Your task to perform on an android device: delete browsing data in the chrome app Image 0: 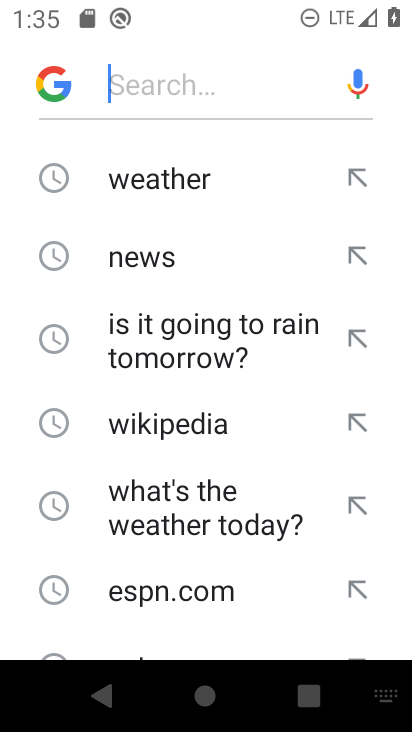
Step 0: press home button
Your task to perform on an android device: delete browsing data in the chrome app Image 1: 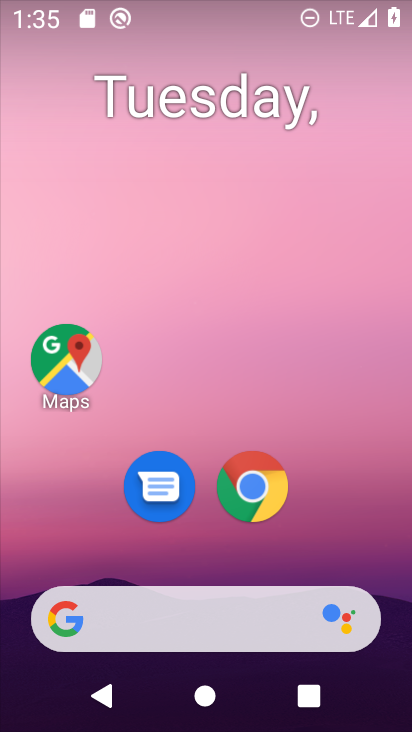
Step 1: drag from (203, 577) to (258, 160)
Your task to perform on an android device: delete browsing data in the chrome app Image 2: 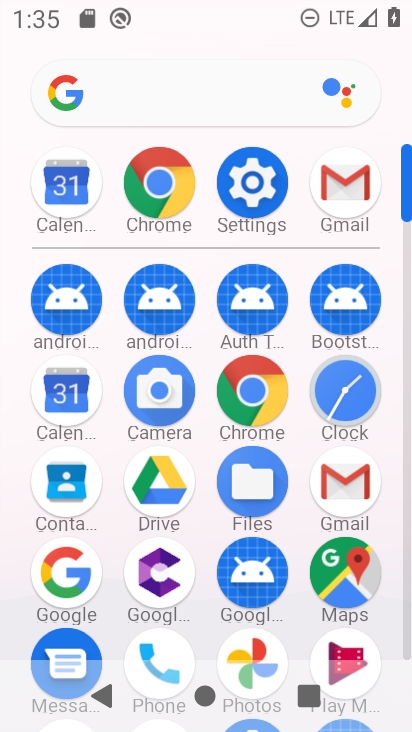
Step 2: drag from (192, 261) to (209, 149)
Your task to perform on an android device: delete browsing data in the chrome app Image 3: 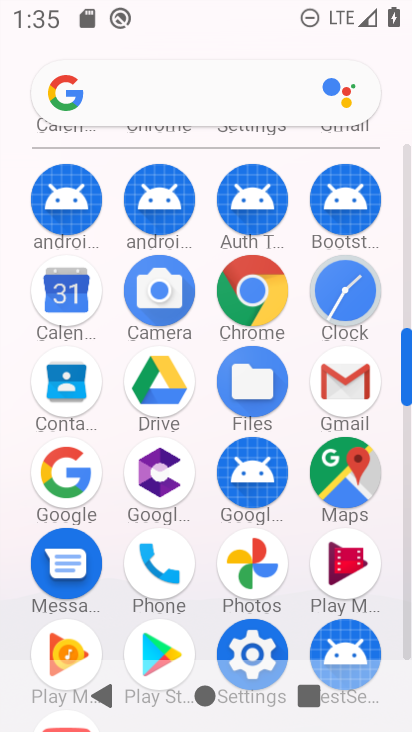
Step 3: click (261, 304)
Your task to perform on an android device: delete browsing data in the chrome app Image 4: 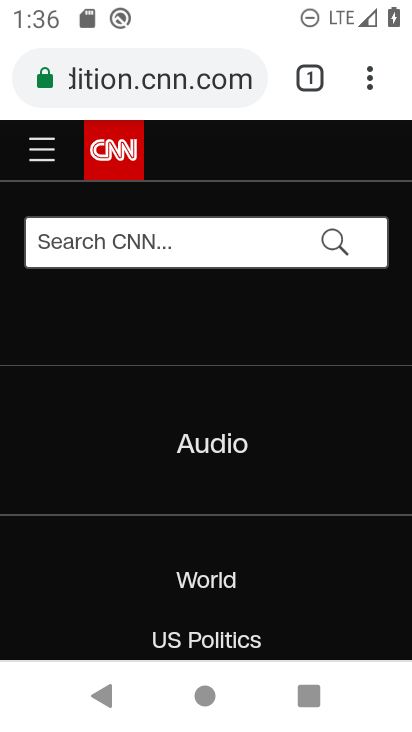
Step 4: click (373, 85)
Your task to perform on an android device: delete browsing data in the chrome app Image 5: 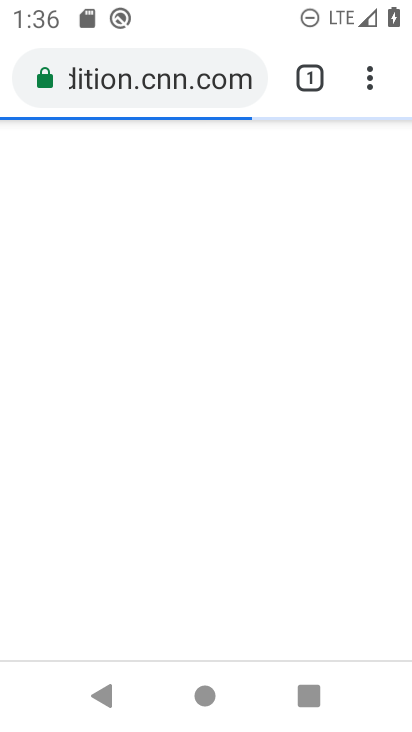
Step 5: click (373, 85)
Your task to perform on an android device: delete browsing data in the chrome app Image 6: 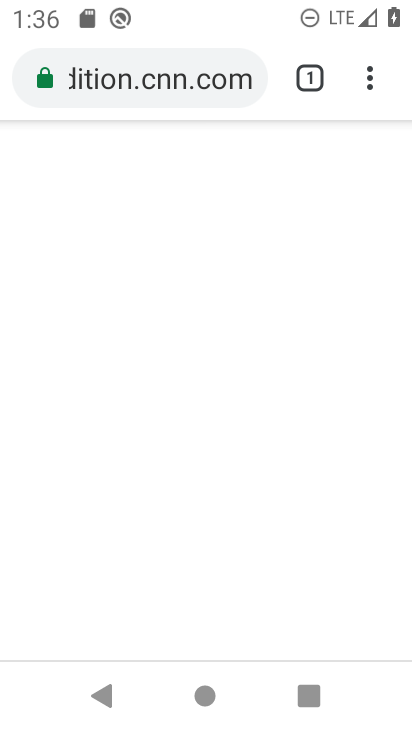
Step 6: click (370, 85)
Your task to perform on an android device: delete browsing data in the chrome app Image 7: 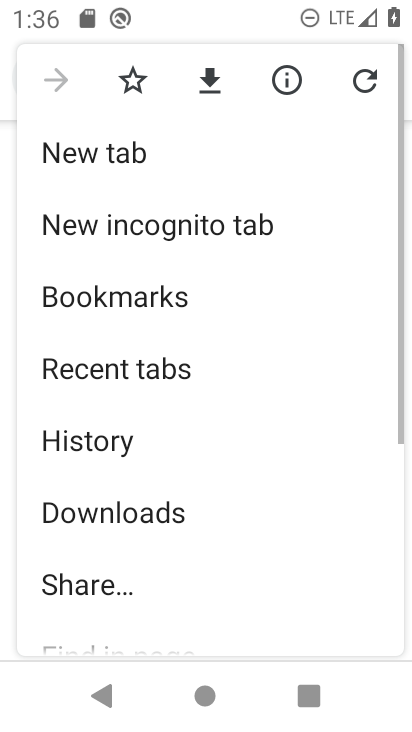
Step 7: drag from (193, 517) to (241, 232)
Your task to perform on an android device: delete browsing data in the chrome app Image 8: 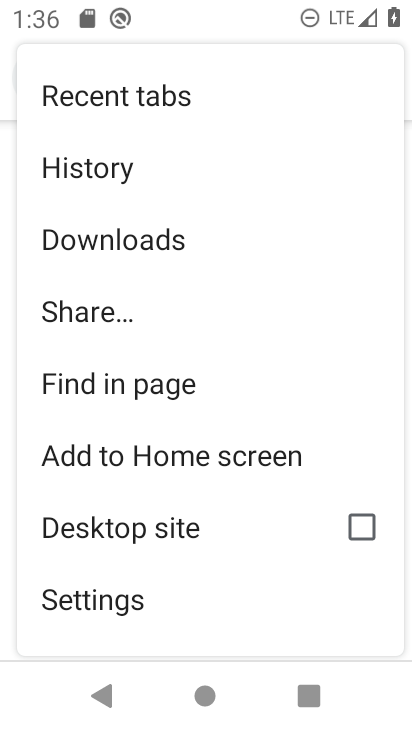
Step 8: click (165, 605)
Your task to perform on an android device: delete browsing data in the chrome app Image 9: 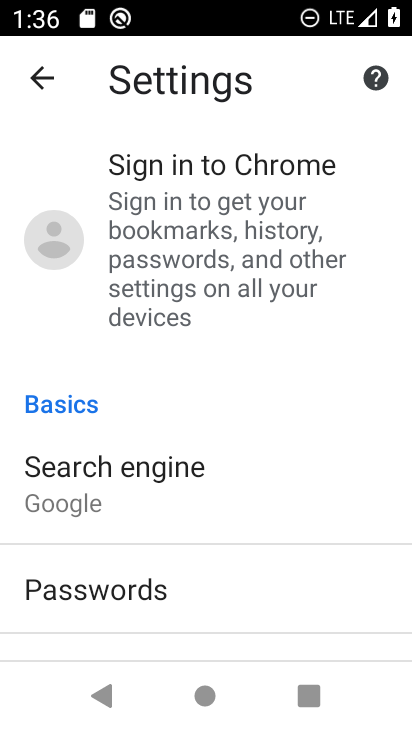
Step 9: drag from (141, 581) to (209, 199)
Your task to perform on an android device: delete browsing data in the chrome app Image 10: 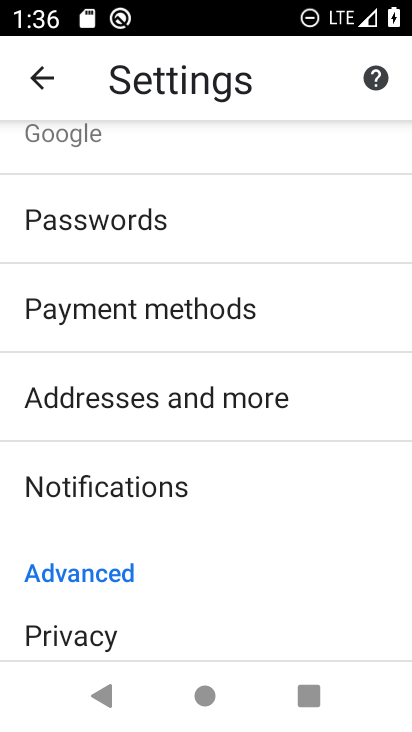
Step 10: drag from (166, 573) to (185, 328)
Your task to perform on an android device: delete browsing data in the chrome app Image 11: 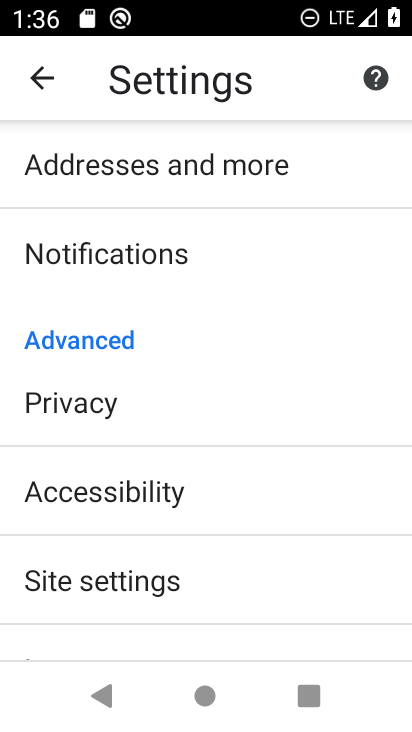
Step 11: press back button
Your task to perform on an android device: delete browsing data in the chrome app Image 12: 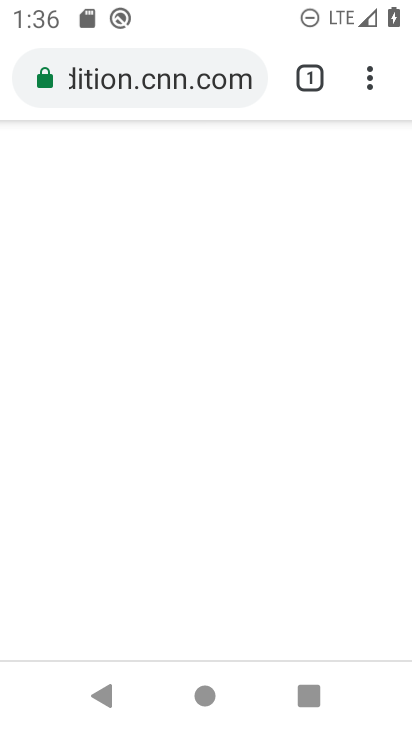
Step 12: click (364, 84)
Your task to perform on an android device: delete browsing data in the chrome app Image 13: 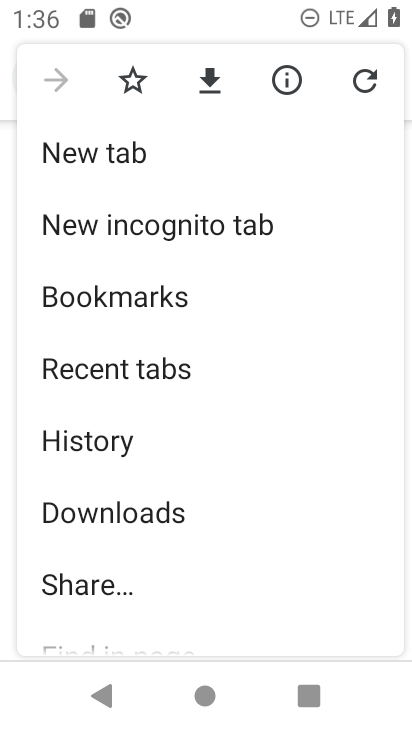
Step 13: click (129, 457)
Your task to perform on an android device: delete browsing data in the chrome app Image 14: 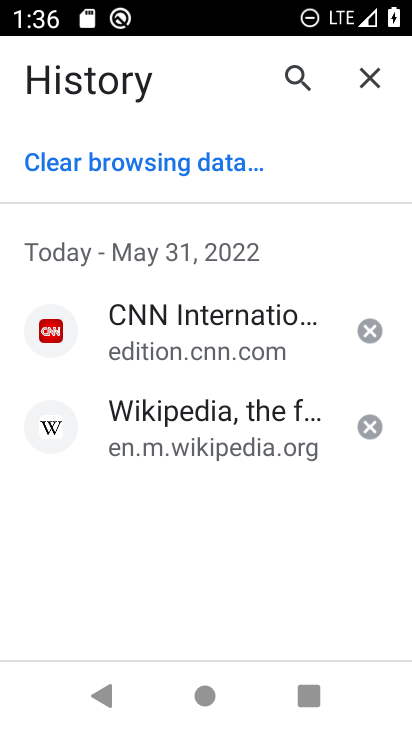
Step 14: click (182, 164)
Your task to perform on an android device: delete browsing data in the chrome app Image 15: 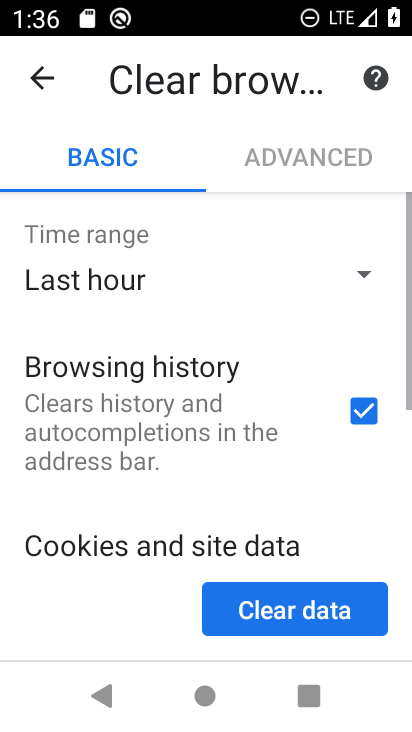
Step 15: click (290, 616)
Your task to perform on an android device: delete browsing data in the chrome app Image 16: 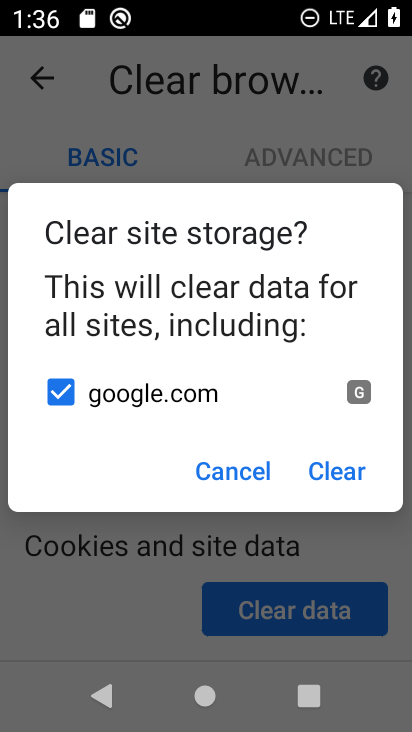
Step 16: click (349, 466)
Your task to perform on an android device: delete browsing data in the chrome app Image 17: 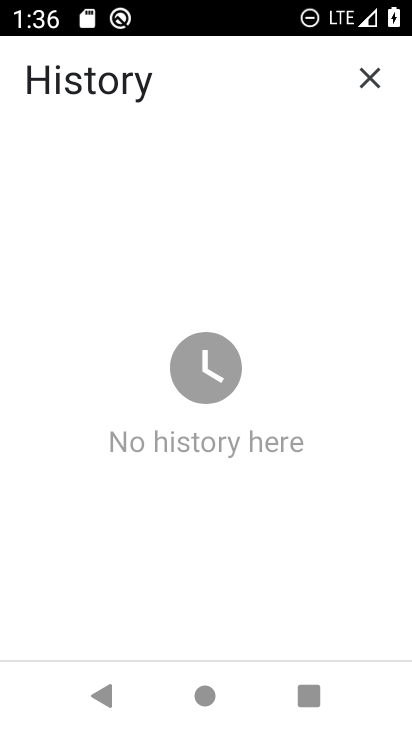
Step 17: task complete